Your task to perform on an android device: toggle javascript in the chrome app Image 0: 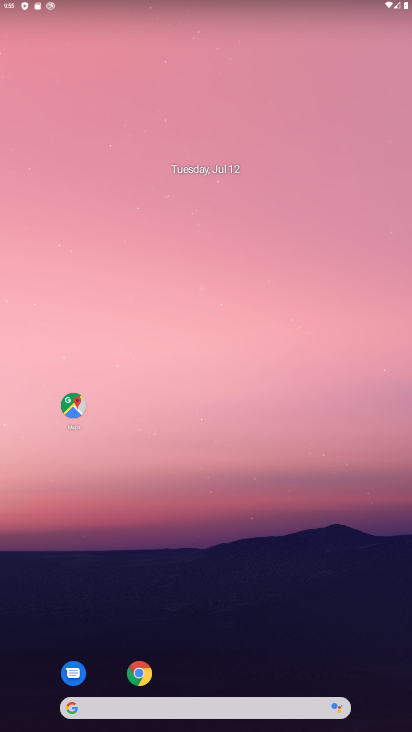
Step 0: drag from (325, 607) to (245, 58)
Your task to perform on an android device: toggle javascript in the chrome app Image 1: 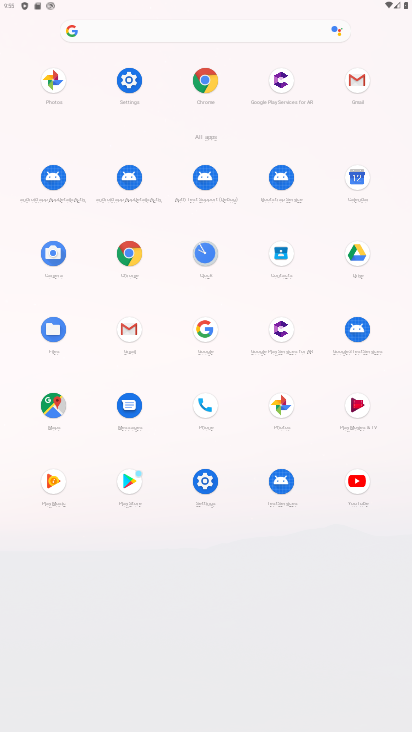
Step 1: click (202, 77)
Your task to perform on an android device: toggle javascript in the chrome app Image 2: 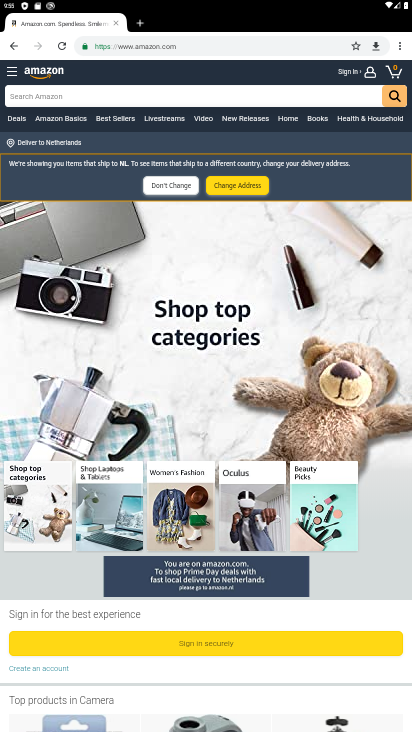
Step 2: drag from (400, 39) to (317, 332)
Your task to perform on an android device: toggle javascript in the chrome app Image 3: 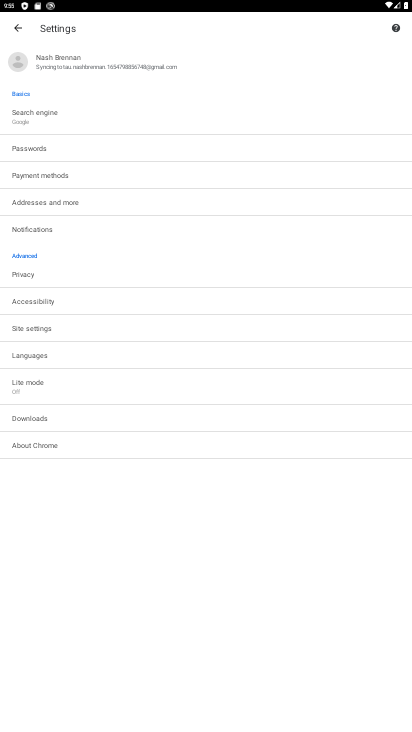
Step 3: click (24, 328)
Your task to perform on an android device: toggle javascript in the chrome app Image 4: 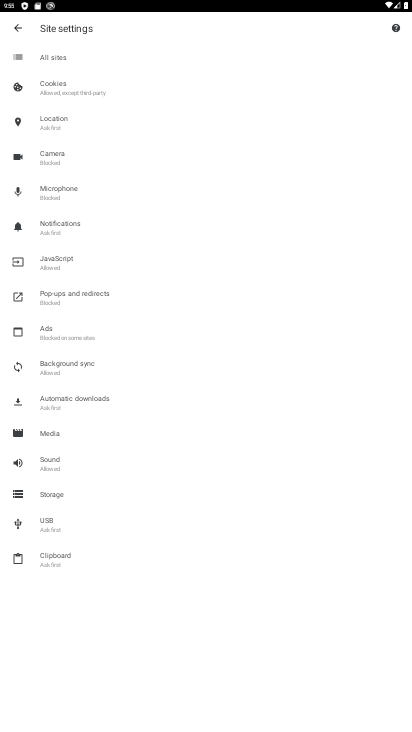
Step 4: click (61, 266)
Your task to perform on an android device: toggle javascript in the chrome app Image 5: 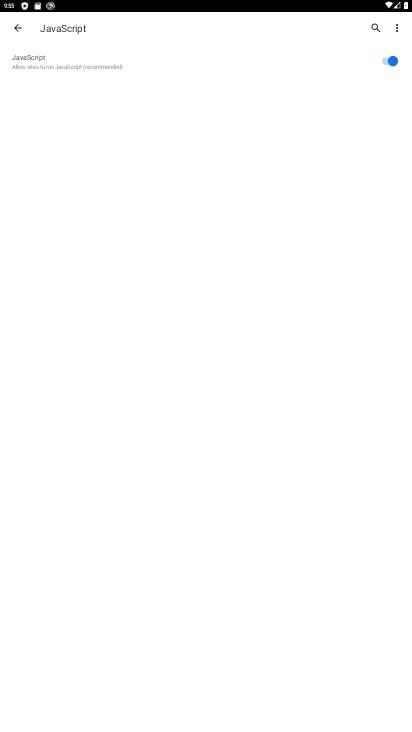
Step 5: click (390, 61)
Your task to perform on an android device: toggle javascript in the chrome app Image 6: 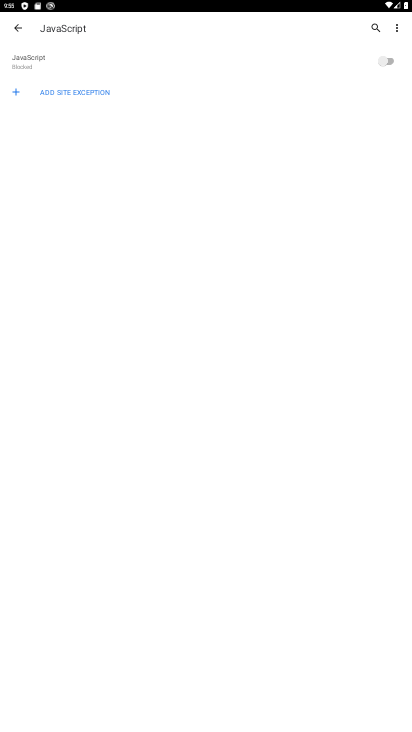
Step 6: task complete